Your task to perform on an android device: Go to Wikipedia Image 0: 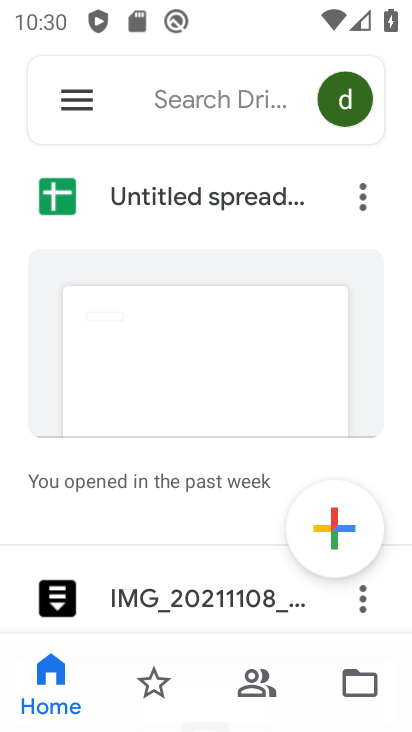
Step 0: press back button
Your task to perform on an android device: Go to Wikipedia Image 1: 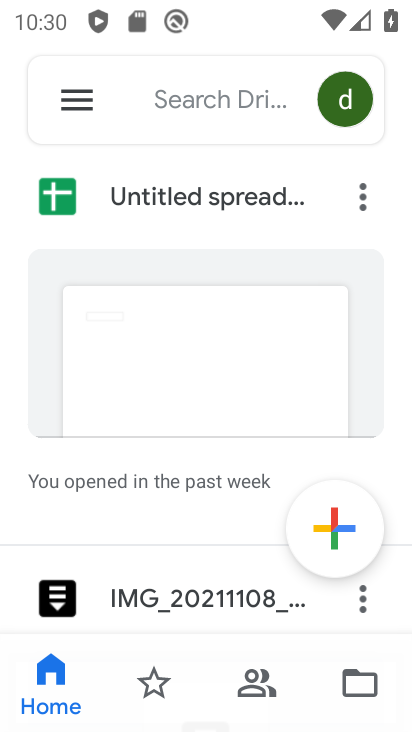
Step 1: press back button
Your task to perform on an android device: Go to Wikipedia Image 2: 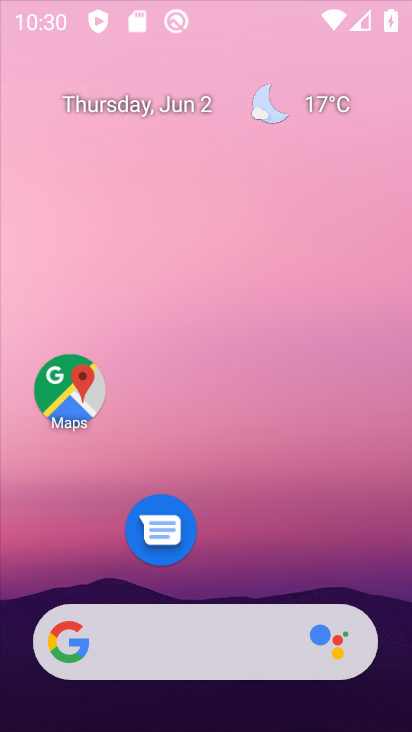
Step 2: press back button
Your task to perform on an android device: Go to Wikipedia Image 3: 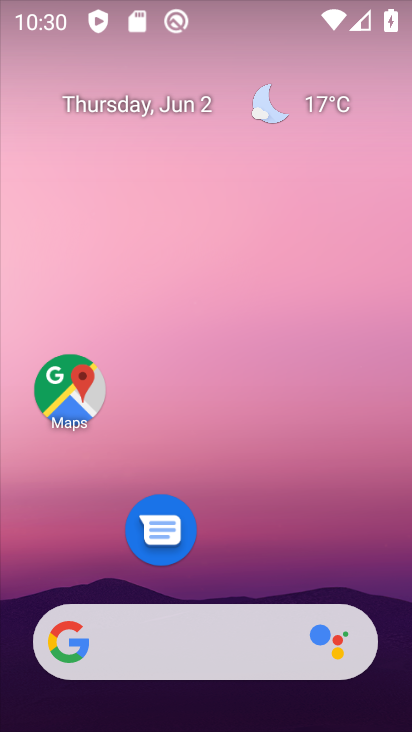
Step 3: drag from (274, 637) to (194, 151)
Your task to perform on an android device: Go to Wikipedia Image 4: 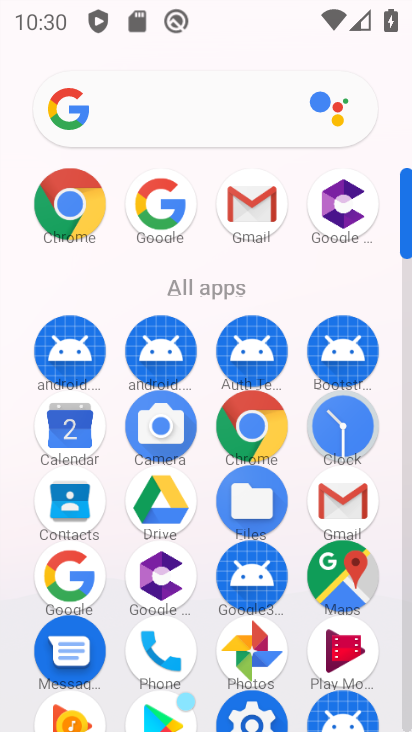
Step 4: drag from (203, 460) to (157, 223)
Your task to perform on an android device: Go to Wikipedia Image 5: 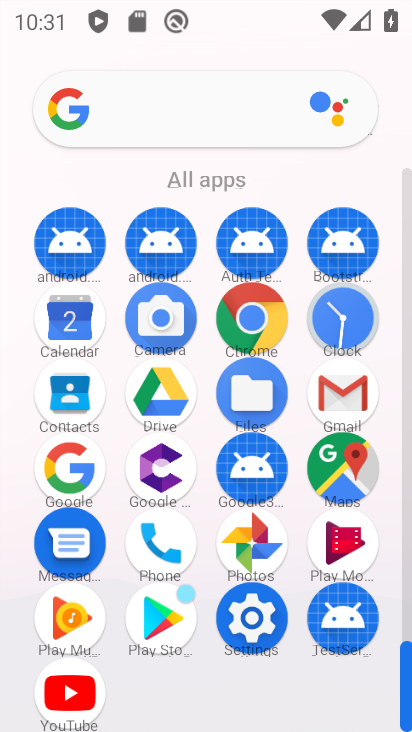
Step 5: click (256, 327)
Your task to perform on an android device: Go to Wikipedia Image 6: 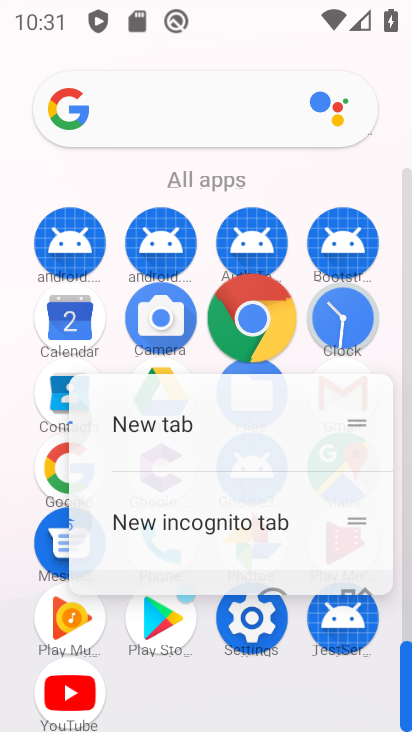
Step 6: click (248, 326)
Your task to perform on an android device: Go to Wikipedia Image 7: 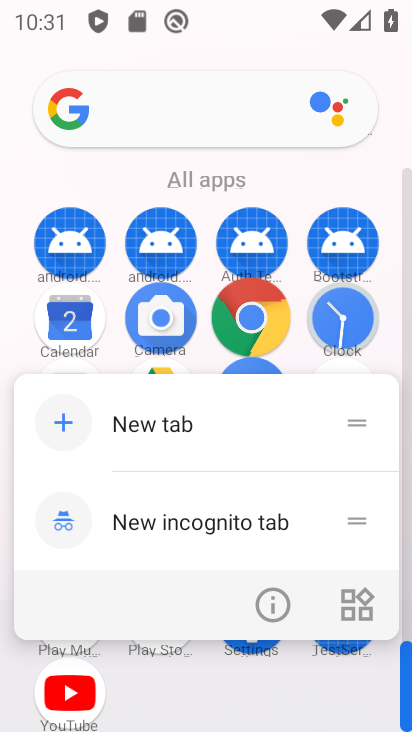
Step 7: click (247, 325)
Your task to perform on an android device: Go to Wikipedia Image 8: 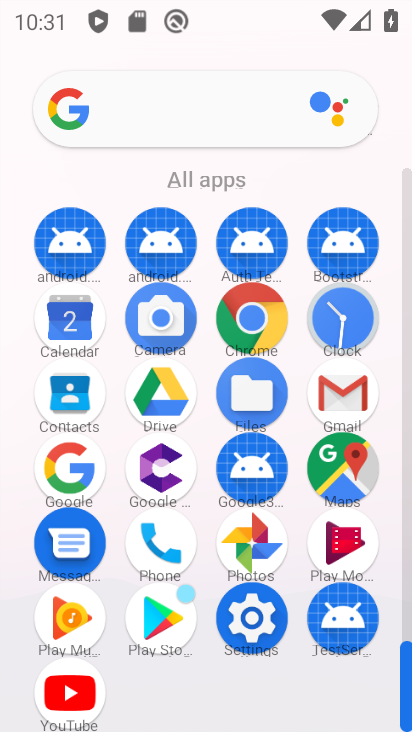
Step 8: click (247, 322)
Your task to perform on an android device: Go to Wikipedia Image 9: 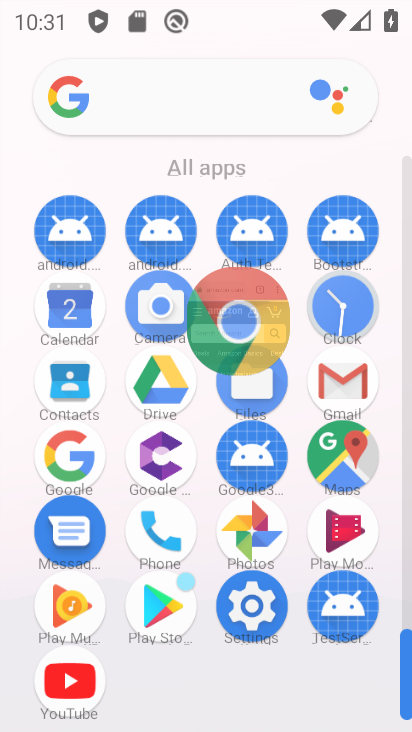
Step 9: click (242, 317)
Your task to perform on an android device: Go to Wikipedia Image 10: 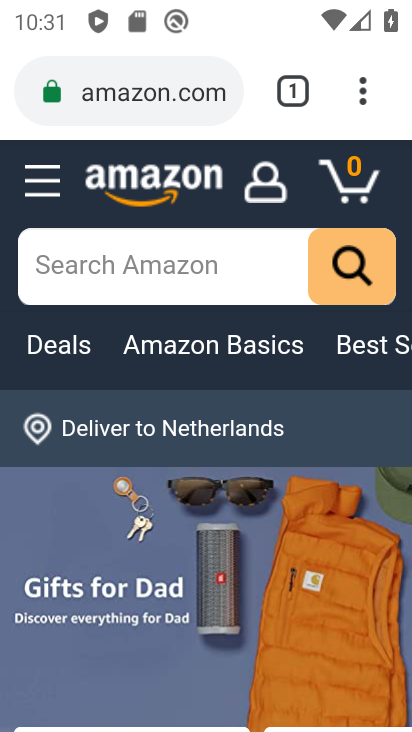
Step 10: drag from (357, 94) to (70, 168)
Your task to perform on an android device: Go to Wikipedia Image 11: 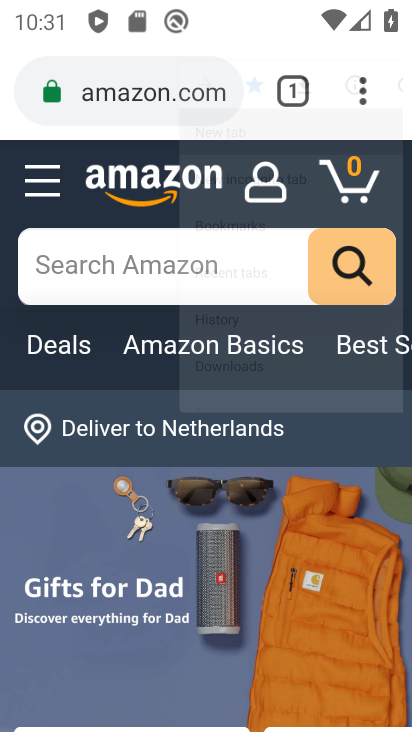
Step 11: click (70, 168)
Your task to perform on an android device: Go to Wikipedia Image 12: 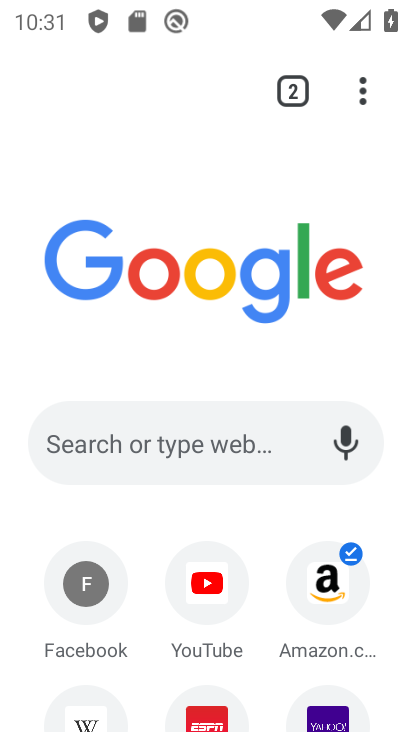
Step 12: click (70, 708)
Your task to perform on an android device: Go to Wikipedia Image 13: 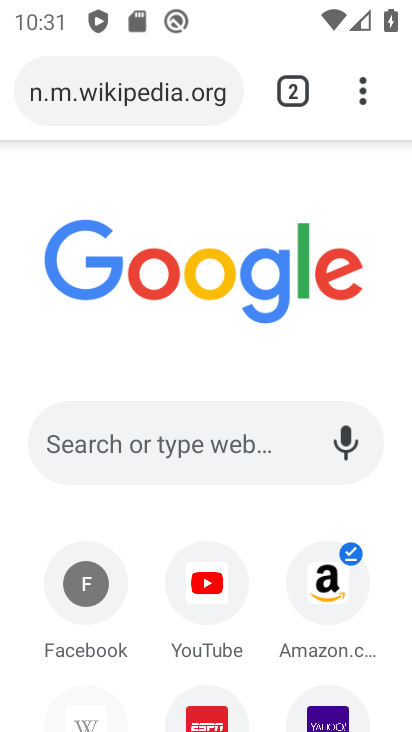
Step 13: click (102, 713)
Your task to perform on an android device: Go to Wikipedia Image 14: 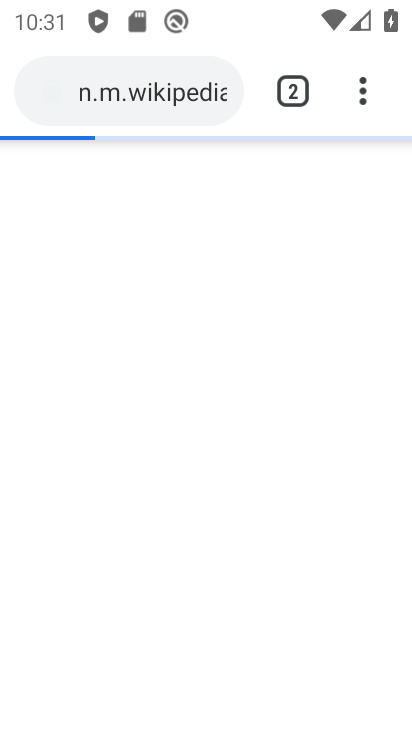
Step 14: click (104, 709)
Your task to perform on an android device: Go to Wikipedia Image 15: 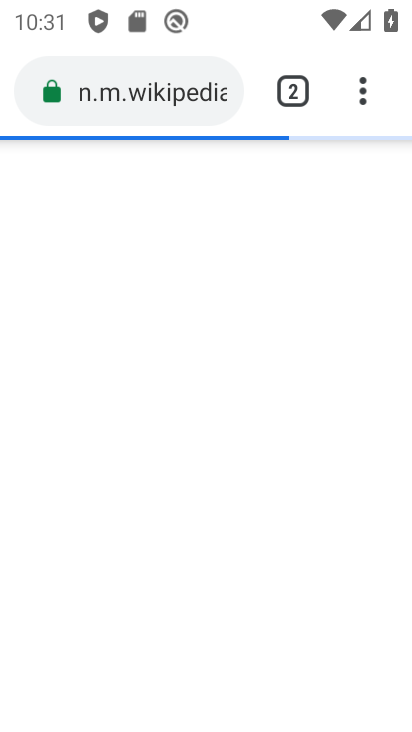
Step 15: click (104, 709)
Your task to perform on an android device: Go to Wikipedia Image 16: 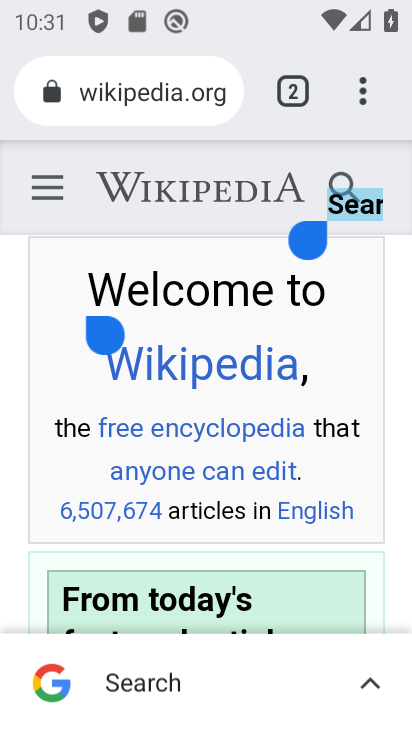
Step 16: task complete